Your task to perform on an android device: Check the weather Image 0: 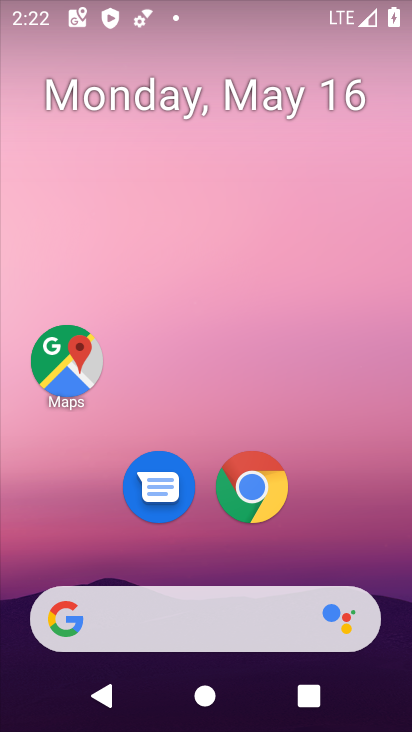
Step 0: drag from (356, 552) to (227, 24)
Your task to perform on an android device: Check the weather Image 1: 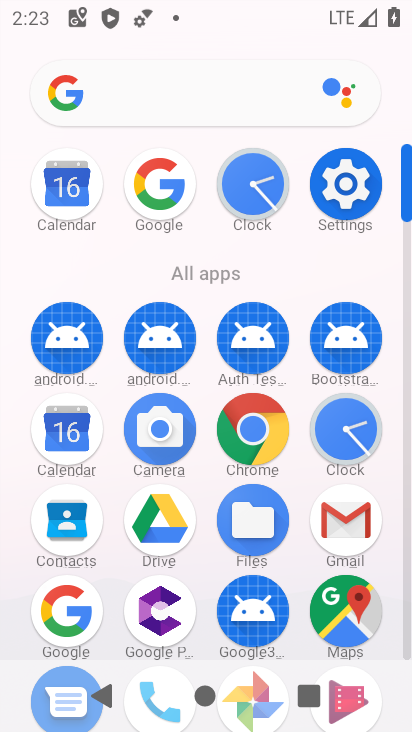
Step 1: click (155, 181)
Your task to perform on an android device: Check the weather Image 2: 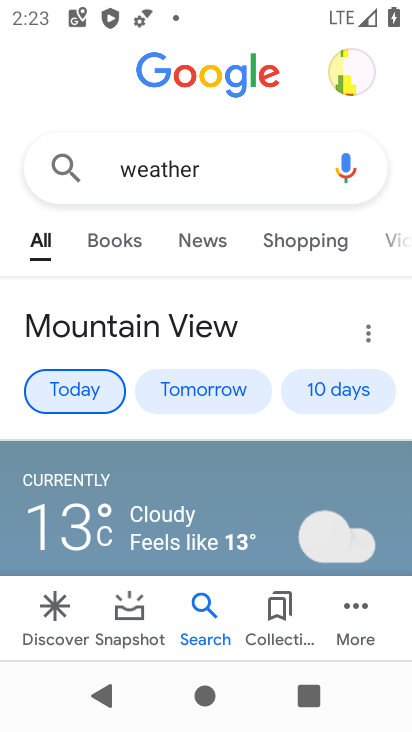
Step 2: task complete